Your task to perform on an android device: Open privacy settings Image 0: 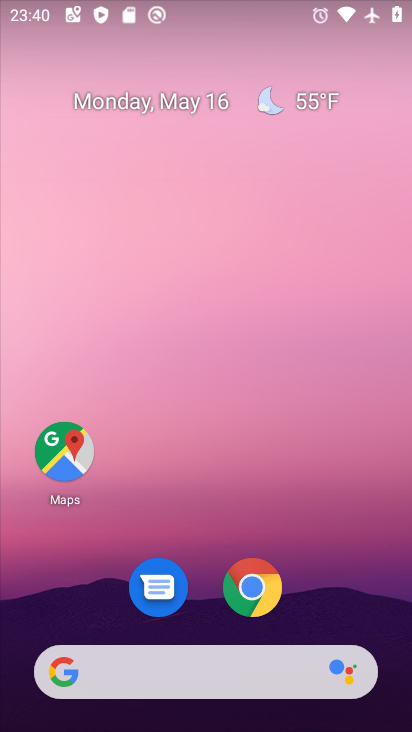
Step 0: drag from (323, 565) to (255, 96)
Your task to perform on an android device: Open privacy settings Image 1: 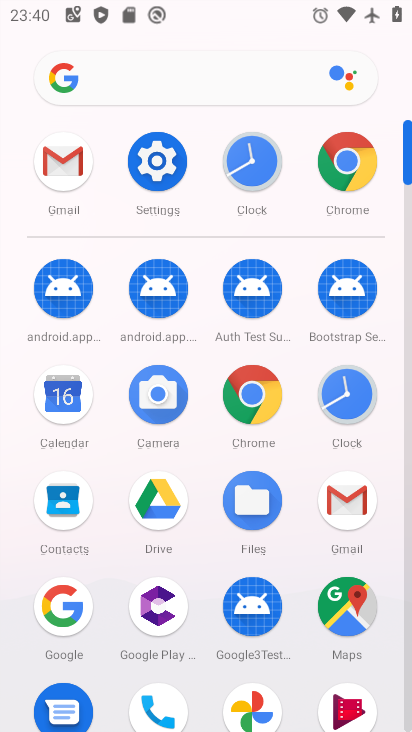
Step 1: drag from (22, 524) to (44, 234)
Your task to perform on an android device: Open privacy settings Image 2: 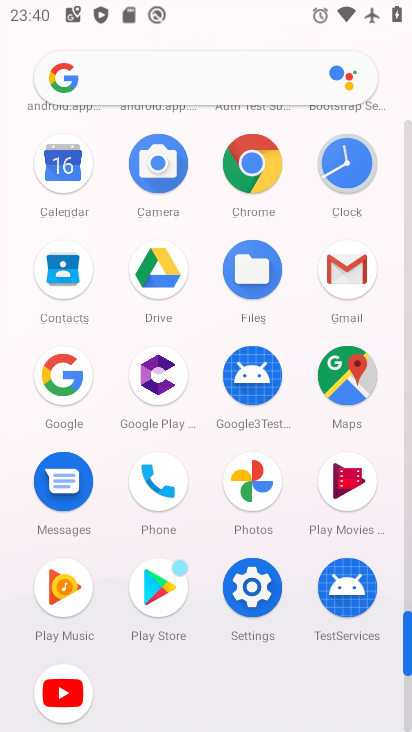
Step 2: click (247, 163)
Your task to perform on an android device: Open privacy settings Image 3: 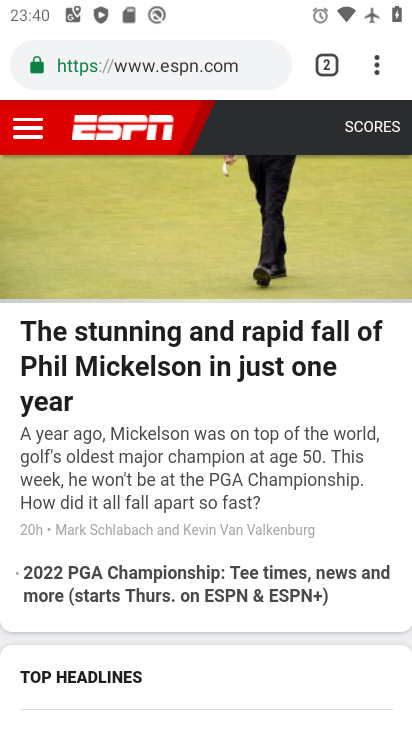
Step 3: drag from (374, 63) to (190, 630)
Your task to perform on an android device: Open privacy settings Image 4: 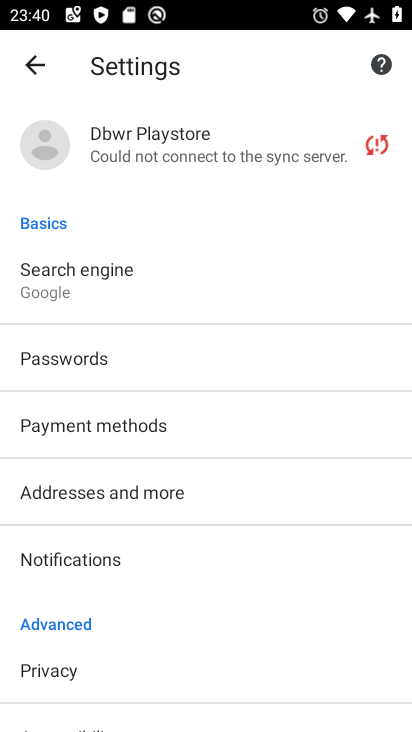
Step 4: click (105, 669)
Your task to perform on an android device: Open privacy settings Image 5: 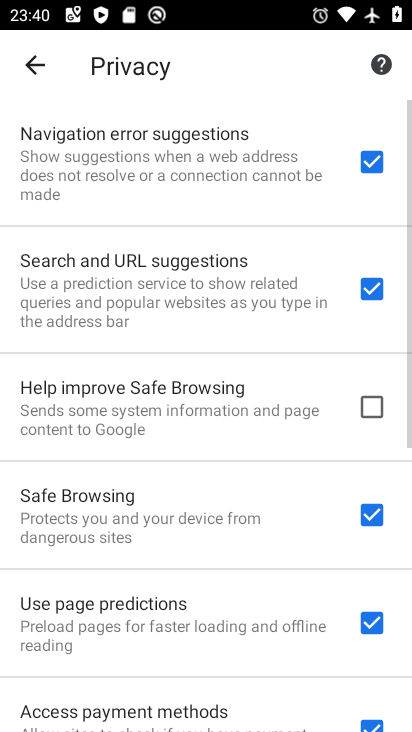
Step 5: task complete